Your task to perform on an android device: Go to settings Image 0: 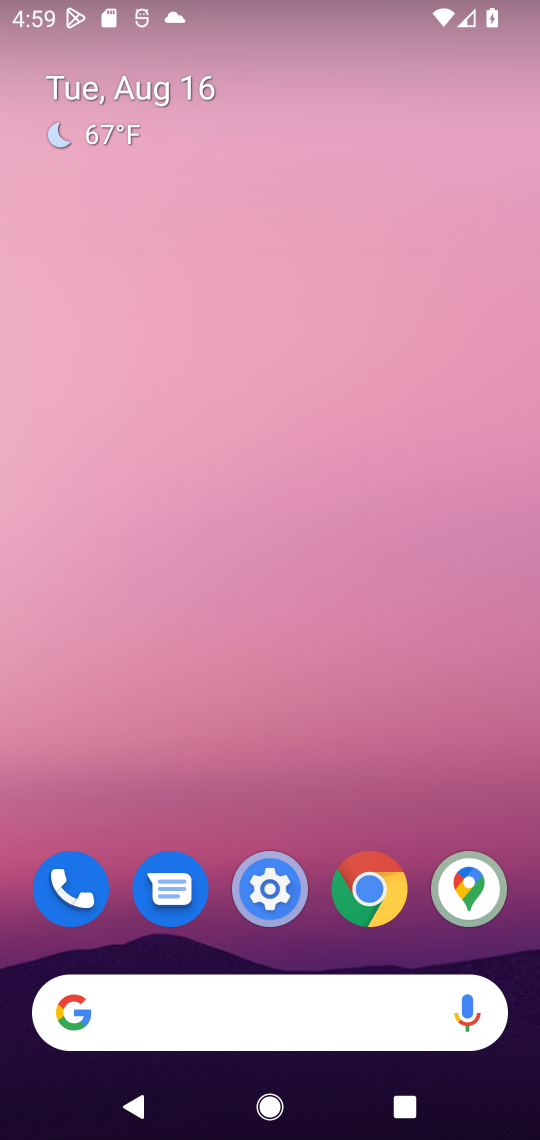
Step 0: click (245, 903)
Your task to perform on an android device: Go to settings Image 1: 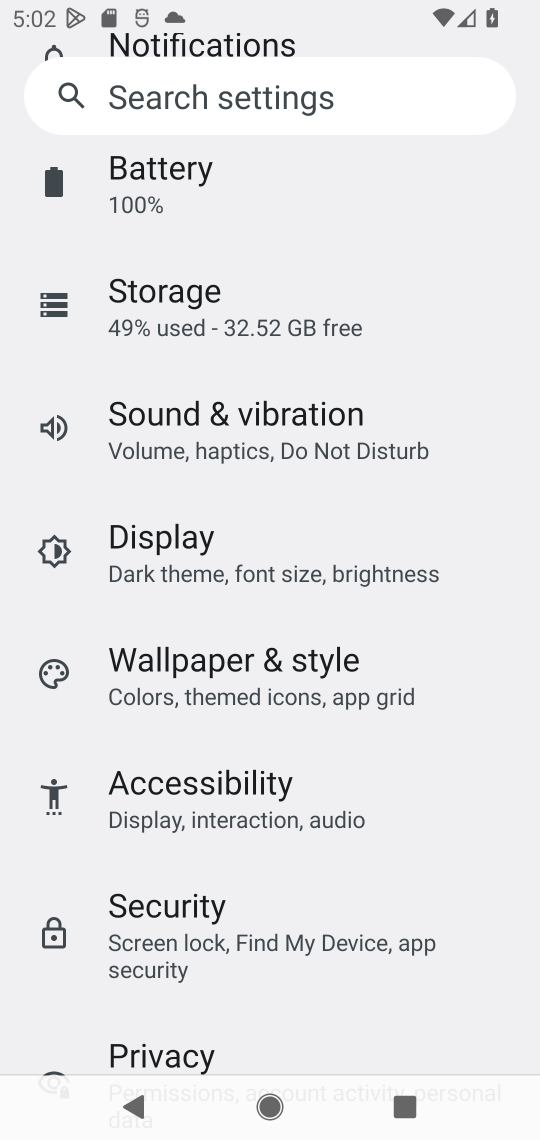
Step 1: task complete